Your task to perform on an android device: delete location history Image 0: 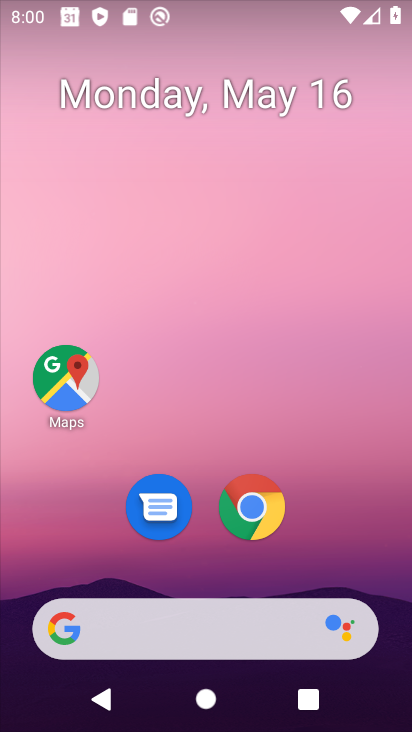
Step 0: click (51, 374)
Your task to perform on an android device: delete location history Image 1: 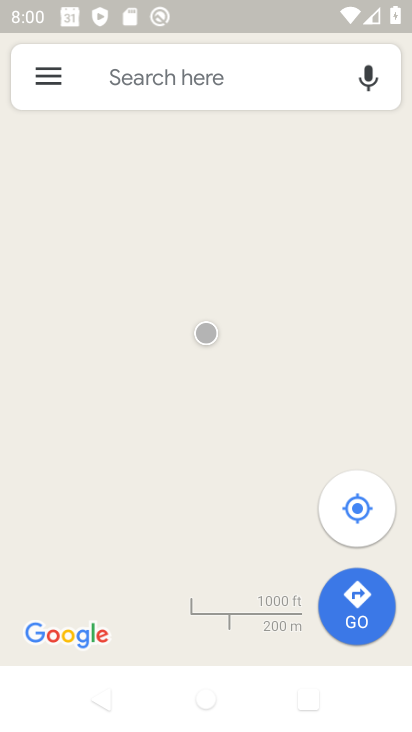
Step 1: click (48, 84)
Your task to perform on an android device: delete location history Image 2: 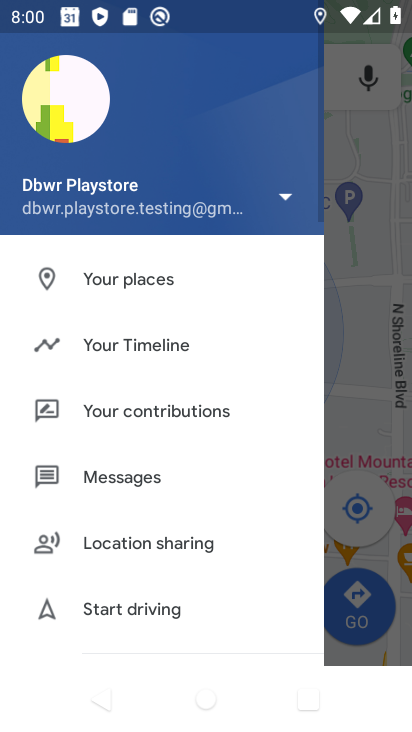
Step 2: click (96, 342)
Your task to perform on an android device: delete location history Image 3: 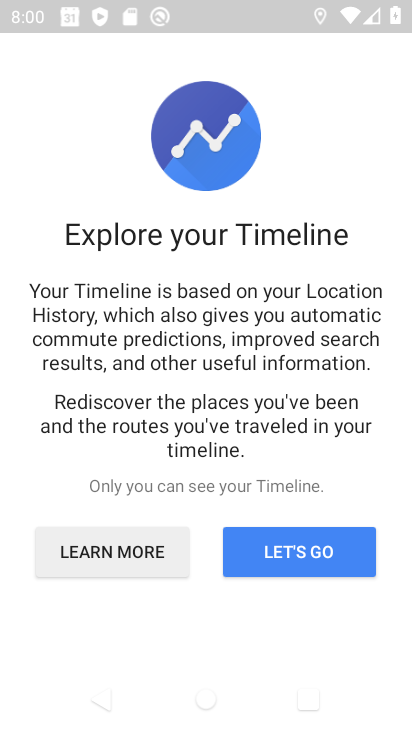
Step 3: click (343, 553)
Your task to perform on an android device: delete location history Image 4: 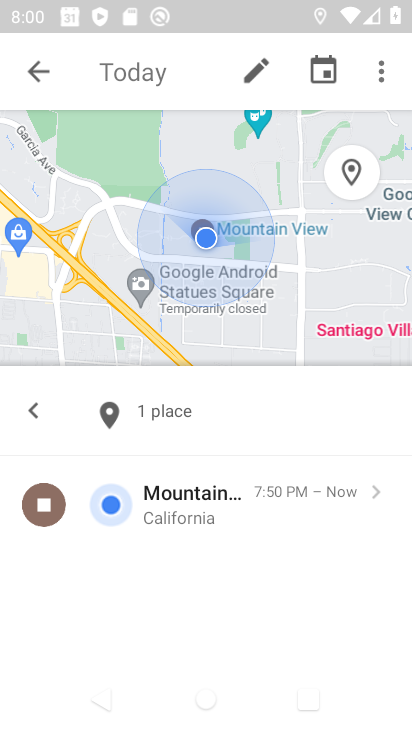
Step 4: click (382, 71)
Your task to perform on an android device: delete location history Image 5: 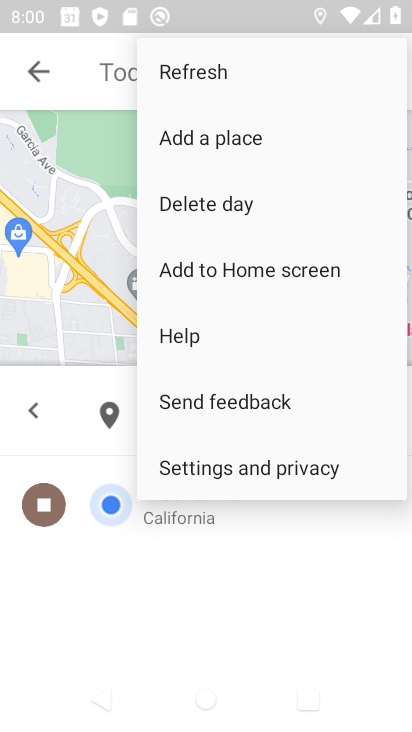
Step 5: click (229, 459)
Your task to perform on an android device: delete location history Image 6: 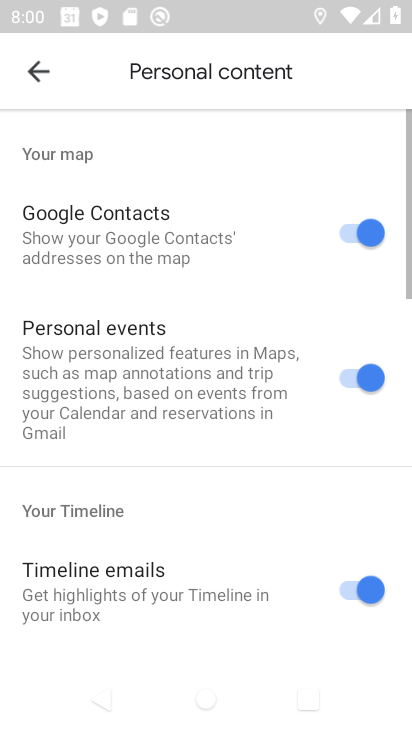
Step 6: drag from (244, 530) to (257, 154)
Your task to perform on an android device: delete location history Image 7: 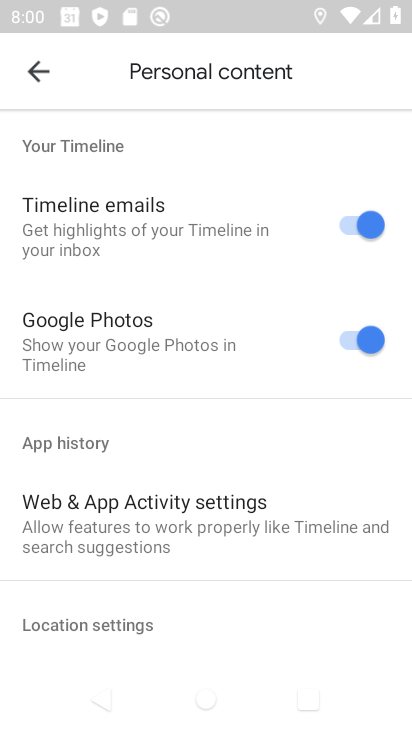
Step 7: drag from (224, 634) to (257, 171)
Your task to perform on an android device: delete location history Image 8: 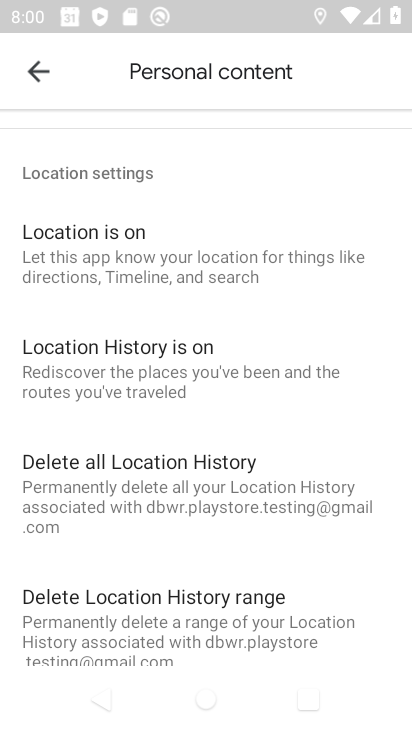
Step 8: click (156, 470)
Your task to perform on an android device: delete location history Image 9: 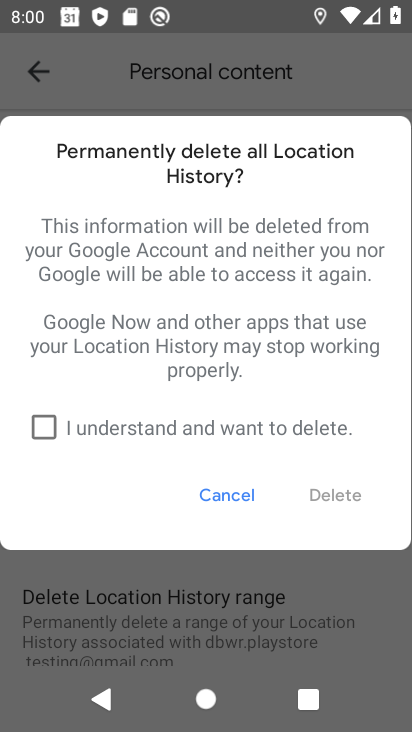
Step 9: click (43, 429)
Your task to perform on an android device: delete location history Image 10: 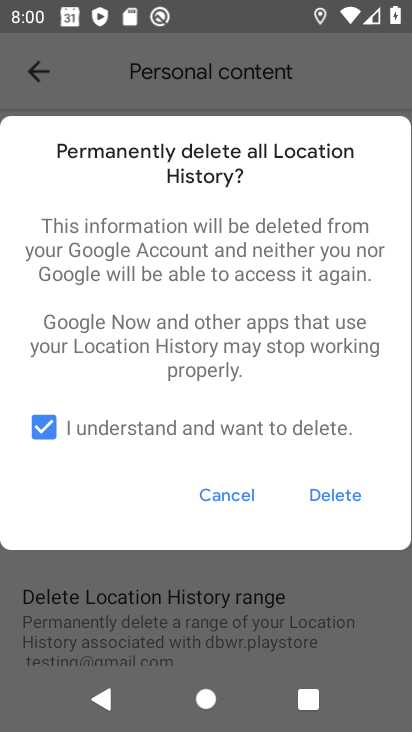
Step 10: click (343, 496)
Your task to perform on an android device: delete location history Image 11: 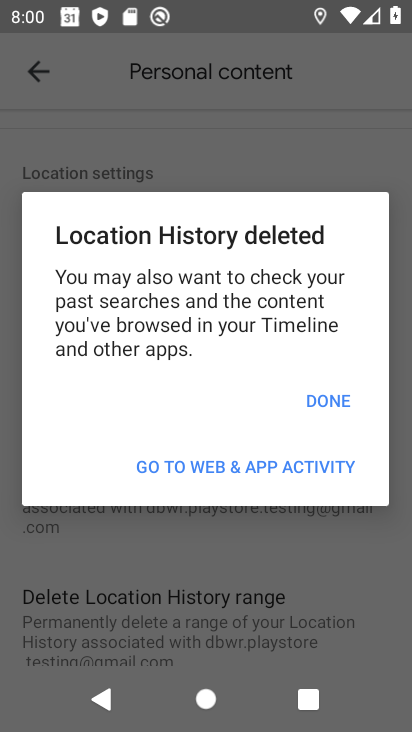
Step 11: click (319, 397)
Your task to perform on an android device: delete location history Image 12: 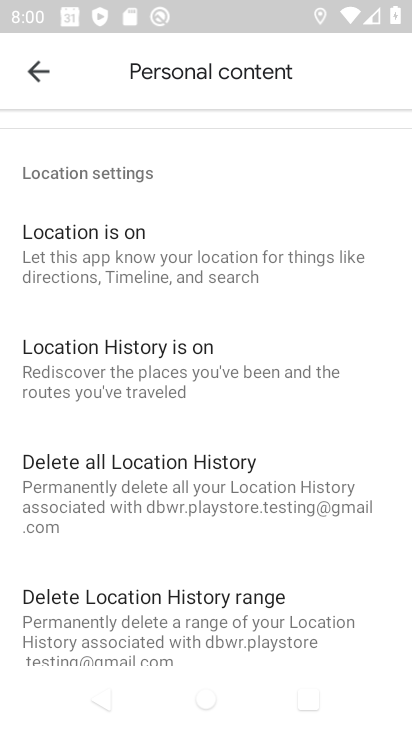
Step 12: task complete